Your task to perform on an android device: choose inbox layout in the gmail app Image 0: 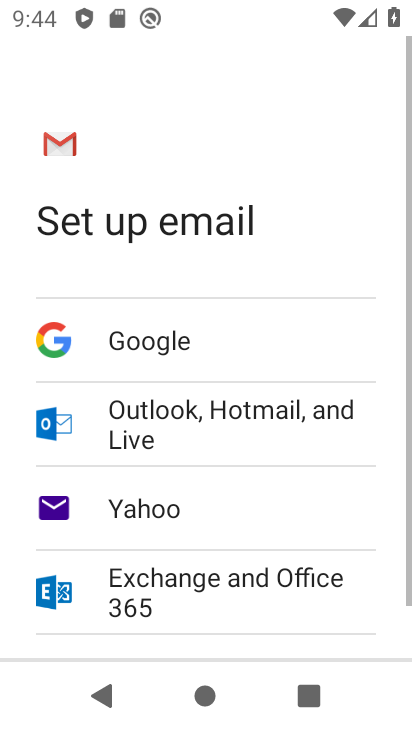
Step 0: press home button
Your task to perform on an android device: choose inbox layout in the gmail app Image 1: 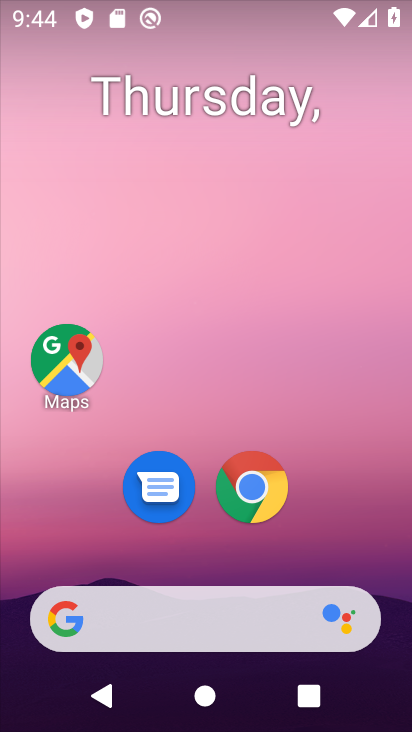
Step 1: drag from (365, 553) to (125, 168)
Your task to perform on an android device: choose inbox layout in the gmail app Image 2: 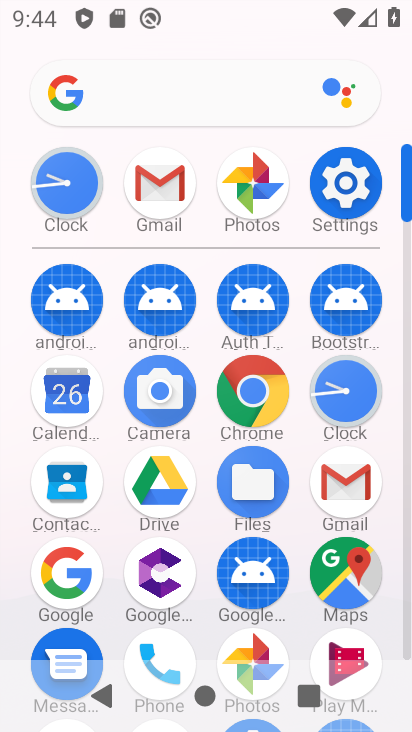
Step 2: click (338, 497)
Your task to perform on an android device: choose inbox layout in the gmail app Image 3: 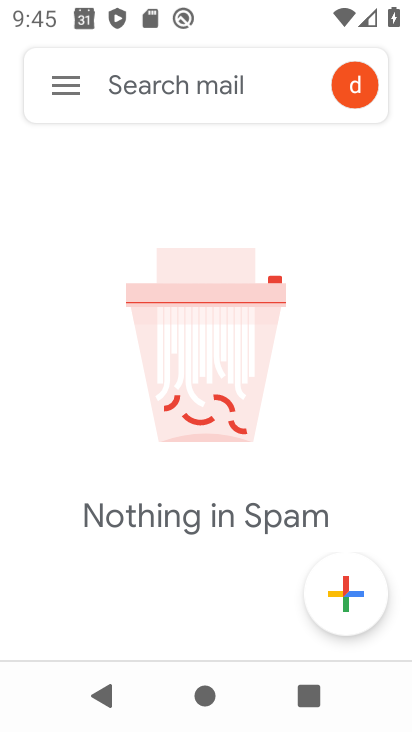
Step 3: click (61, 99)
Your task to perform on an android device: choose inbox layout in the gmail app Image 4: 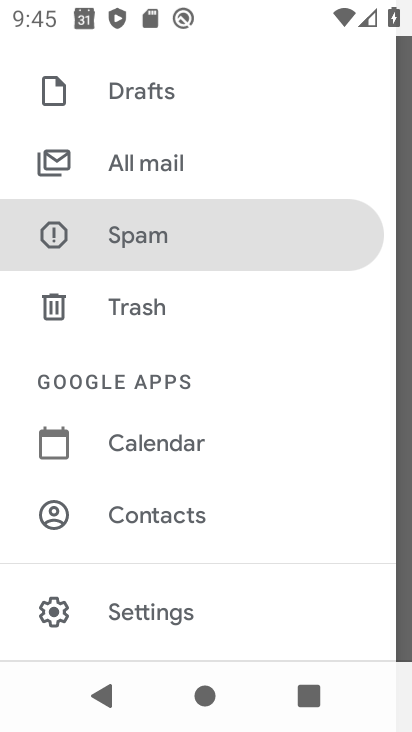
Step 4: drag from (210, 122) to (192, 549)
Your task to perform on an android device: choose inbox layout in the gmail app Image 5: 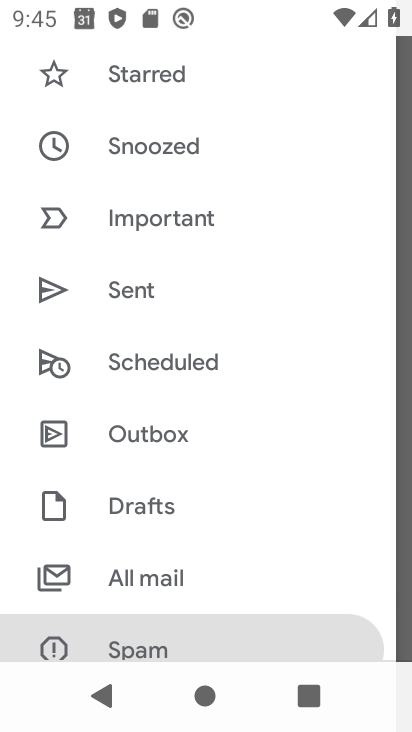
Step 5: drag from (230, 135) to (258, 559)
Your task to perform on an android device: choose inbox layout in the gmail app Image 6: 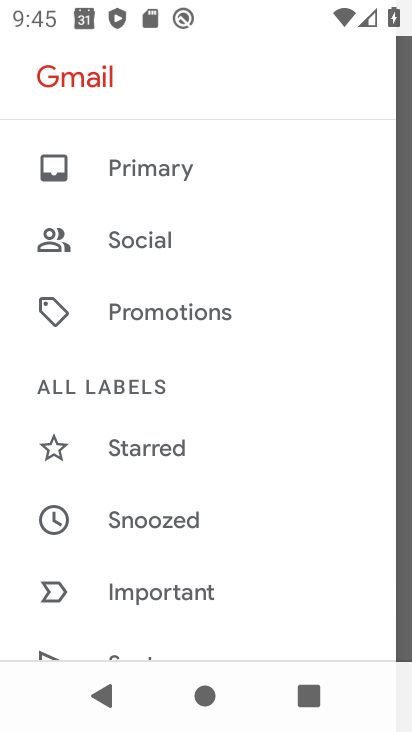
Step 6: drag from (219, 622) to (160, 156)
Your task to perform on an android device: choose inbox layout in the gmail app Image 7: 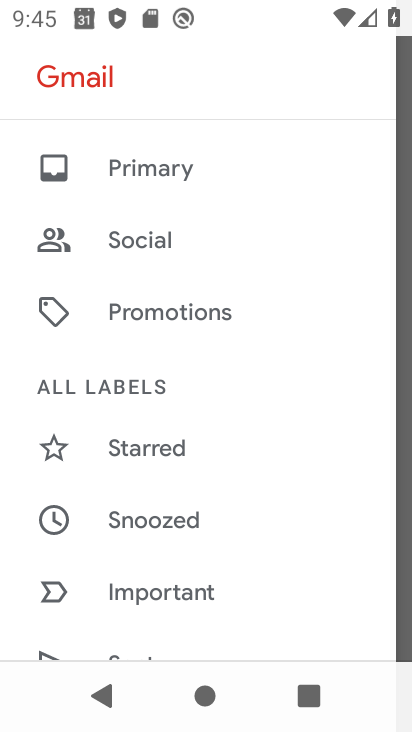
Step 7: drag from (210, 590) to (248, 26)
Your task to perform on an android device: choose inbox layout in the gmail app Image 8: 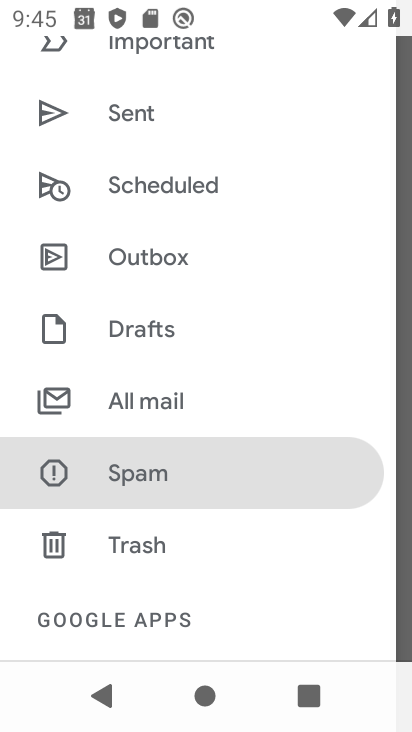
Step 8: drag from (270, 604) to (300, 309)
Your task to perform on an android device: choose inbox layout in the gmail app Image 9: 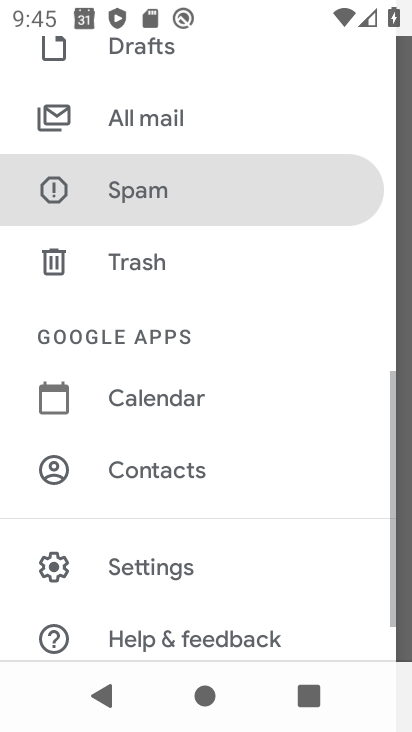
Step 9: drag from (300, 309) to (297, 151)
Your task to perform on an android device: choose inbox layout in the gmail app Image 10: 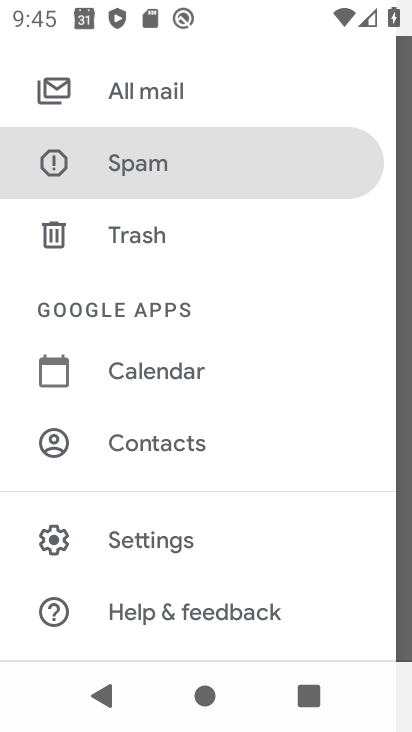
Step 10: click (125, 542)
Your task to perform on an android device: choose inbox layout in the gmail app Image 11: 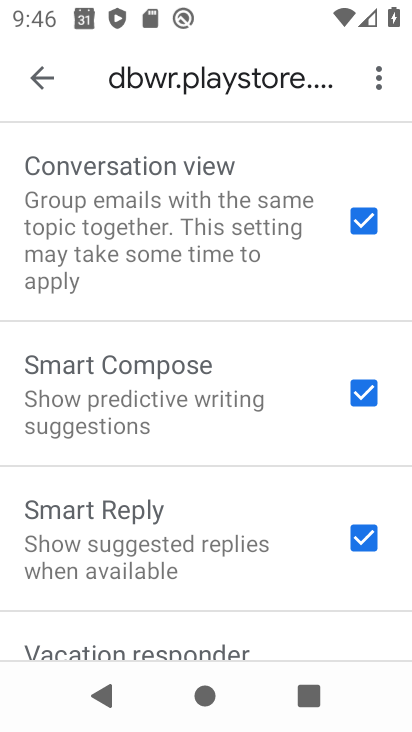
Step 11: drag from (210, 234) to (195, 719)
Your task to perform on an android device: choose inbox layout in the gmail app Image 12: 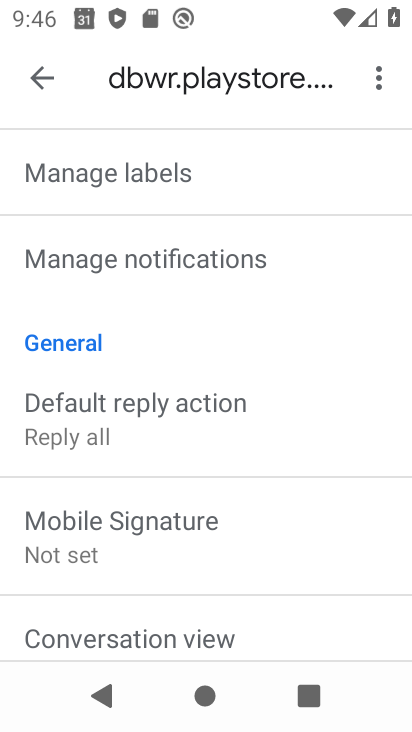
Step 12: drag from (225, 269) to (219, 642)
Your task to perform on an android device: choose inbox layout in the gmail app Image 13: 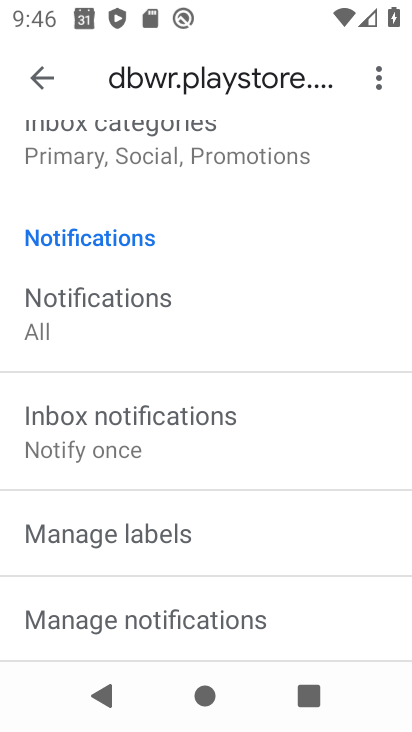
Step 13: drag from (151, 204) to (163, 529)
Your task to perform on an android device: choose inbox layout in the gmail app Image 14: 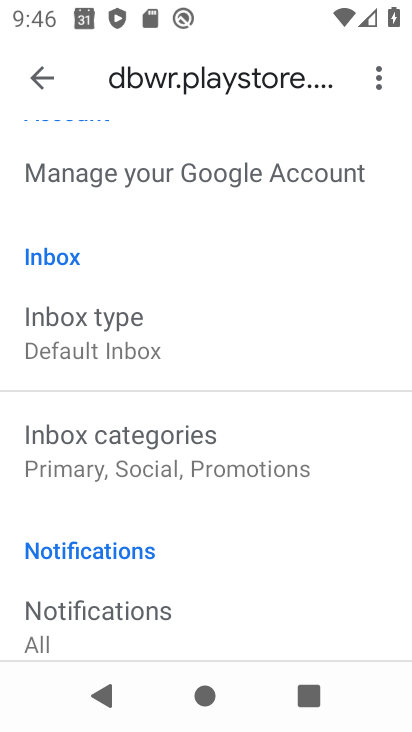
Step 14: click (78, 344)
Your task to perform on an android device: choose inbox layout in the gmail app Image 15: 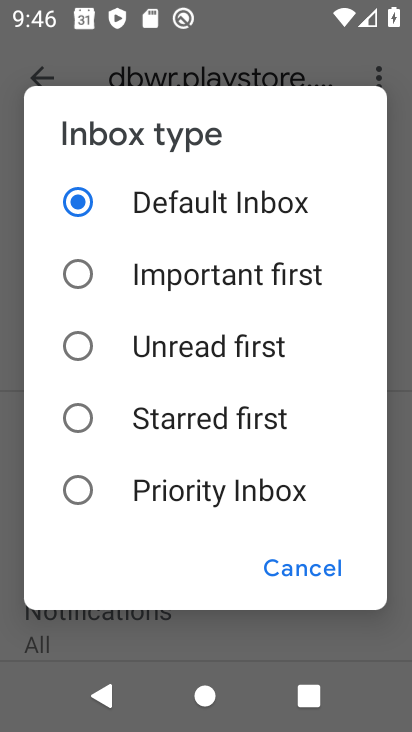
Step 15: click (80, 480)
Your task to perform on an android device: choose inbox layout in the gmail app Image 16: 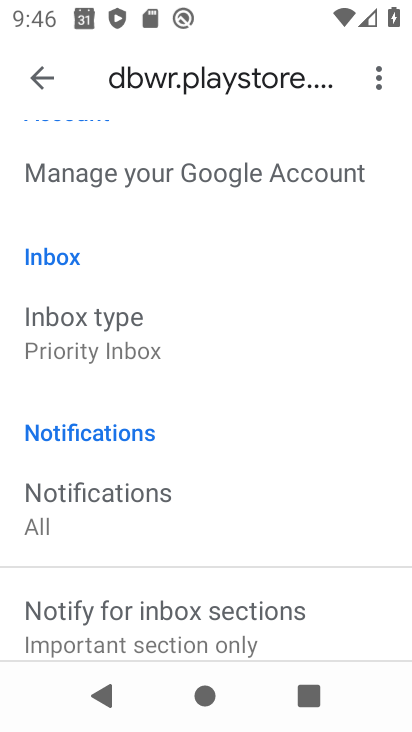
Step 16: click (49, 82)
Your task to perform on an android device: choose inbox layout in the gmail app Image 17: 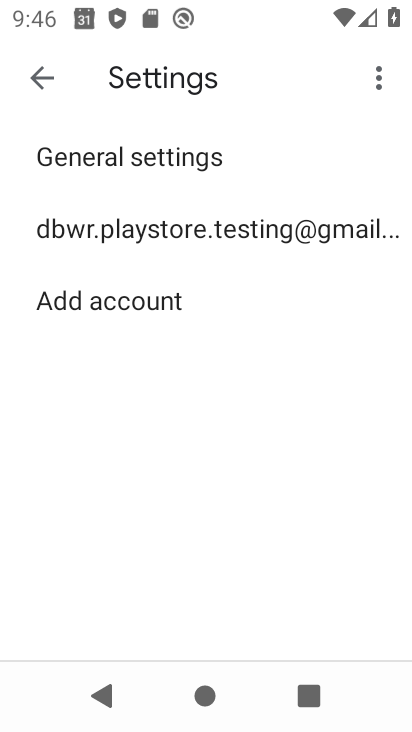
Step 17: press back button
Your task to perform on an android device: choose inbox layout in the gmail app Image 18: 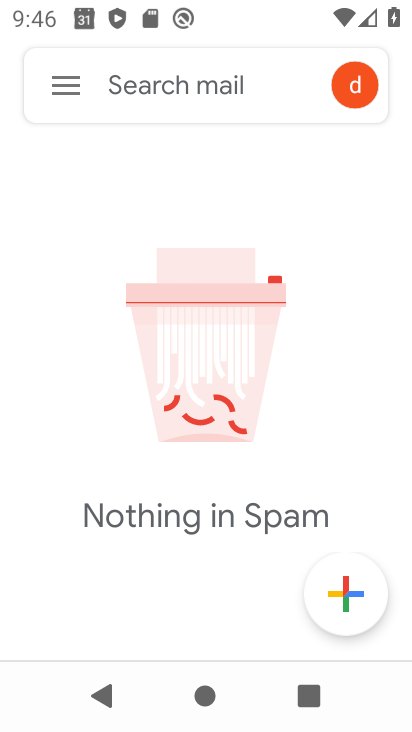
Step 18: click (67, 82)
Your task to perform on an android device: choose inbox layout in the gmail app Image 19: 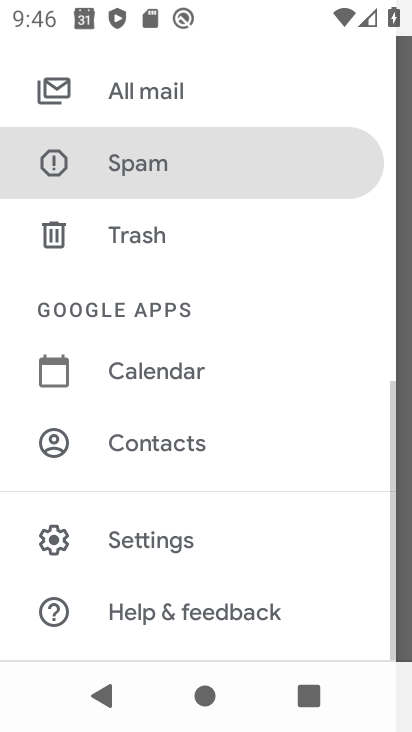
Step 19: task complete